Your task to perform on an android device: turn pop-ups off in chrome Image 0: 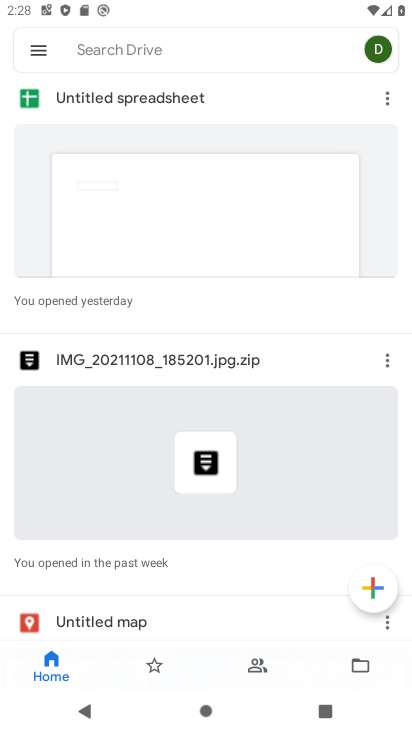
Step 0: press home button
Your task to perform on an android device: turn pop-ups off in chrome Image 1: 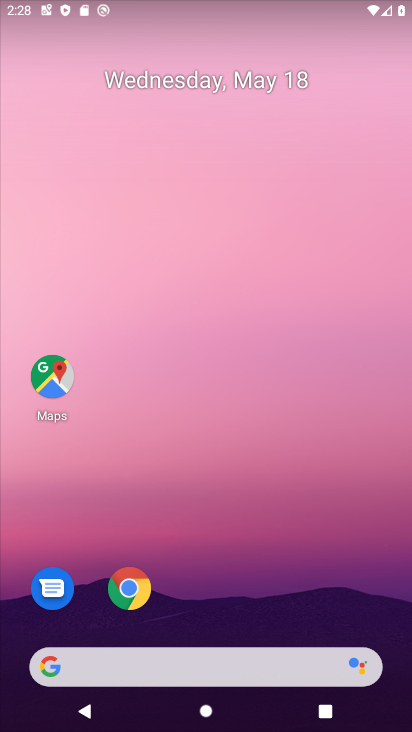
Step 1: drag from (335, 566) to (368, 134)
Your task to perform on an android device: turn pop-ups off in chrome Image 2: 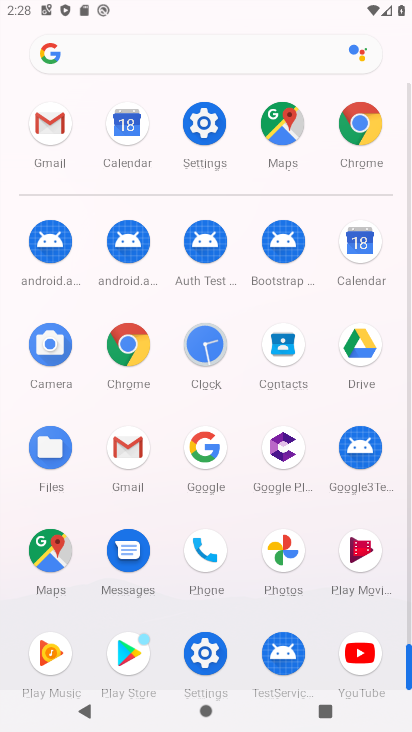
Step 2: click (141, 355)
Your task to perform on an android device: turn pop-ups off in chrome Image 3: 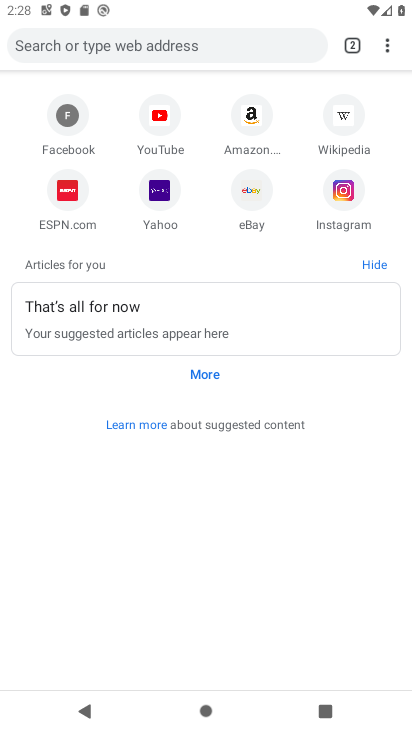
Step 3: click (387, 55)
Your task to perform on an android device: turn pop-ups off in chrome Image 4: 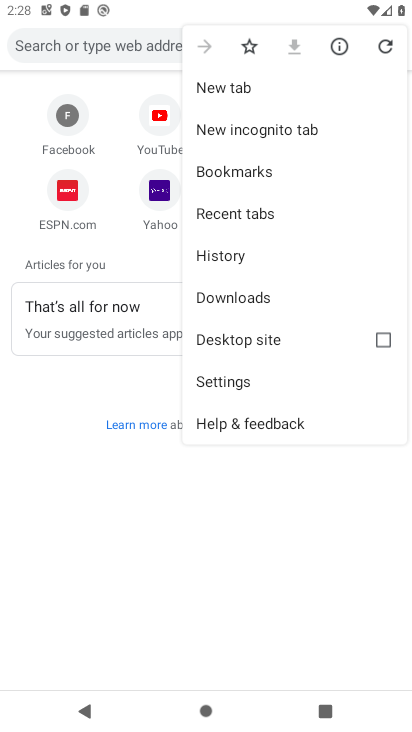
Step 4: click (251, 381)
Your task to perform on an android device: turn pop-ups off in chrome Image 5: 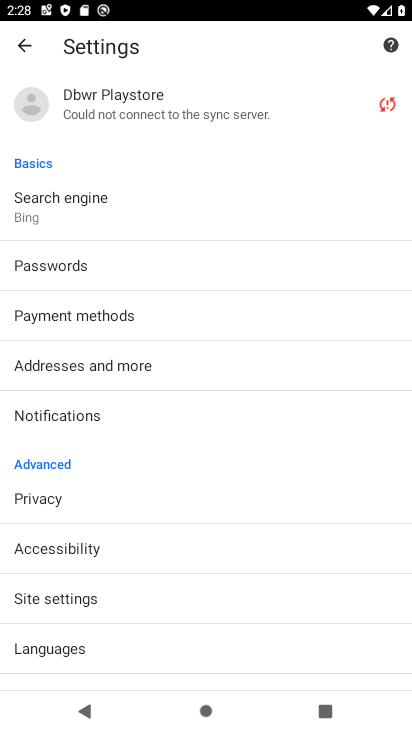
Step 5: drag from (259, 492) to (271, 395)
Your task to perform on an android device: turn pop-ups off in chrome Image 6: 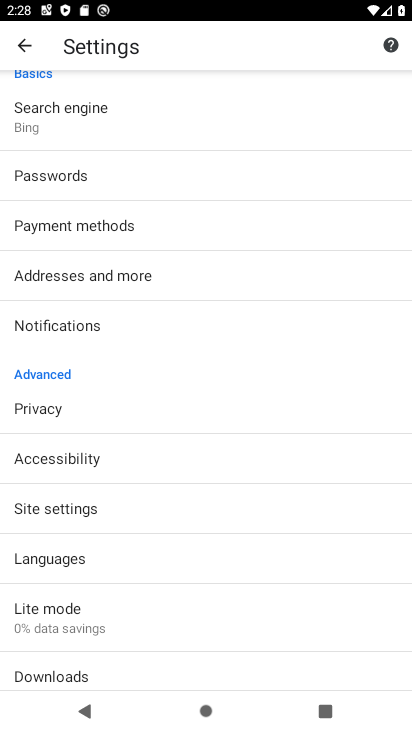
Step 6: drag from (275, 541) to (295, 424)
Your task to perform on an android device: turn pop-ups off in chrome Image 7: 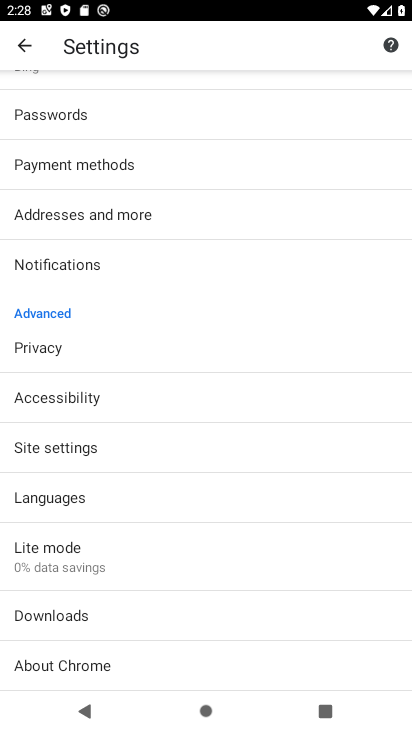
Step 7: drag from (274, 578) to (285, 475)
Your task to perform on an android device: turn pop-ups off in chrome Image 8: 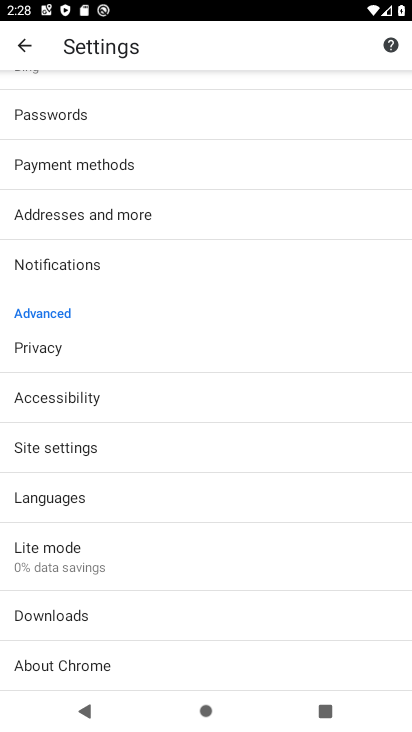
Step 8: drag from (285, 607) to (305, 487)
Your task to perform on an android device: turn pop-ups off in chrome Image 9: 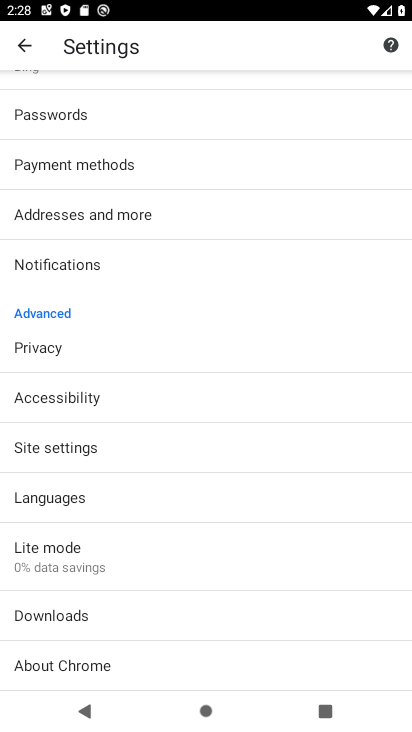
Step 9: drag from (312, 373) to (285, 505)
Your task to perform on an android device: turn pop-ups off in chrome Image 10: 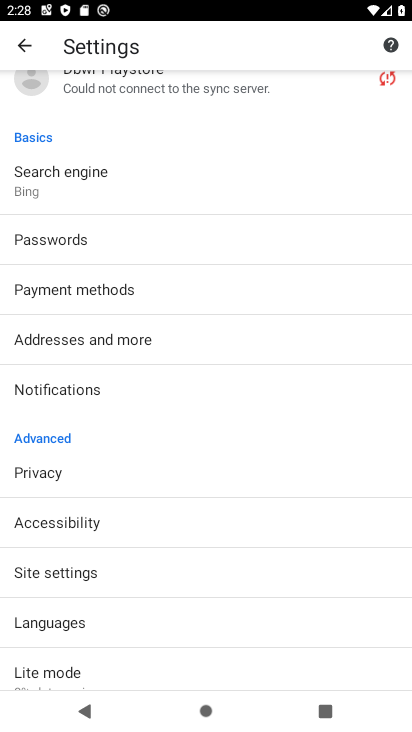
Step 10: drag from (293, 408) to (292, 449)
Your task to perform on an android device: turn pop-ups off in chrome Image 11: 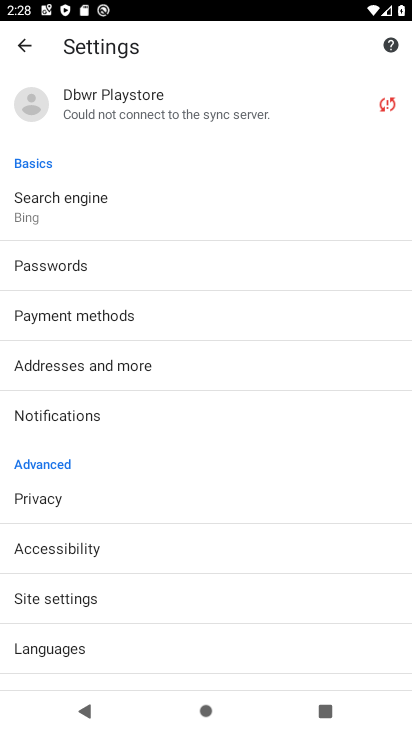
Step 11: drag from (313, 313) to (311, 504)
Your task to perform on an android device: turn pop-ups off in chrome Image 12: 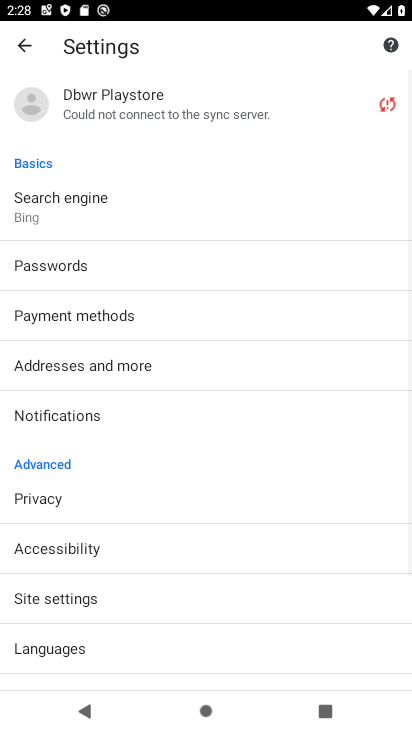
Step 12: drag from (311, 538) to (323, 395)
Your task to perform on an android device: turn pop-ups off in chrome Image 13: 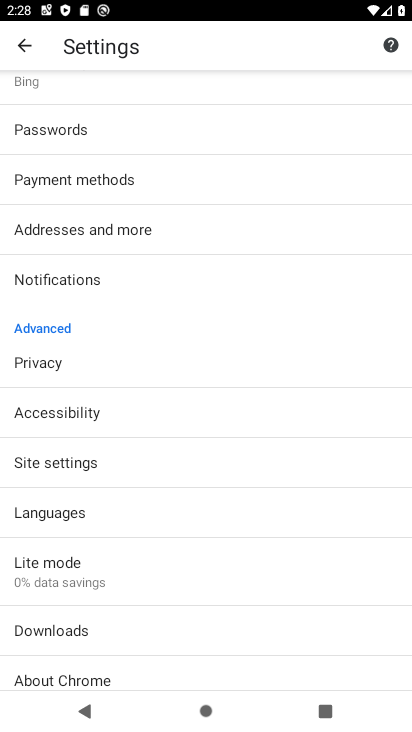
Step 13: click (278, 477)
Your task to perform on an android device: turn pop-ups off in chrome Image 14: 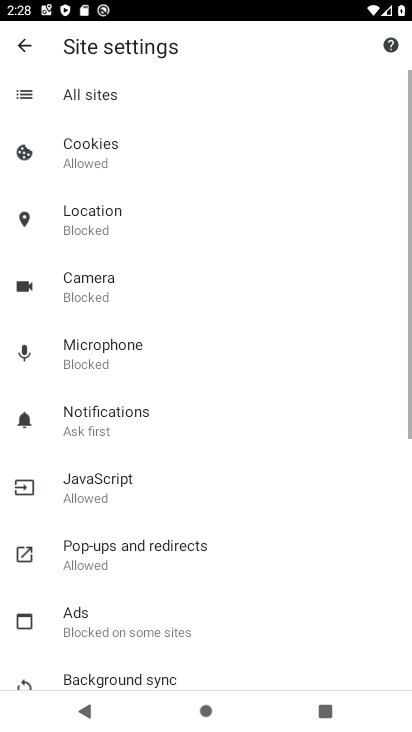
Step 14: drag from (288, 527) to (317, 387)
Your task to perform on an android device: turn pop-ups off in chrome Image 15: 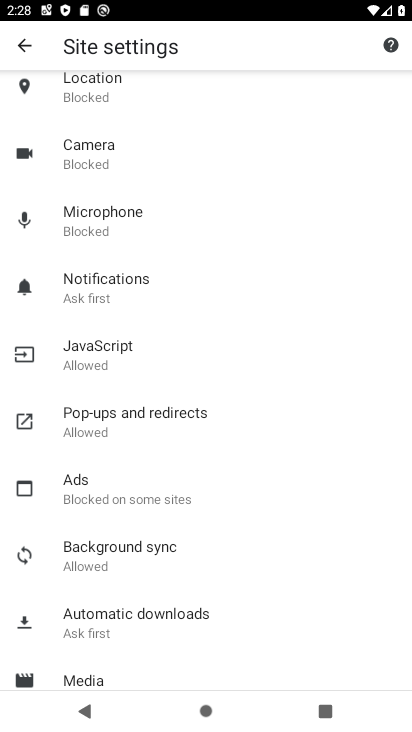
Step 15: drag from (333, 569) to (350, 439)
Your task to perform on an android device: turn pop-ups off in chrome Image 16: 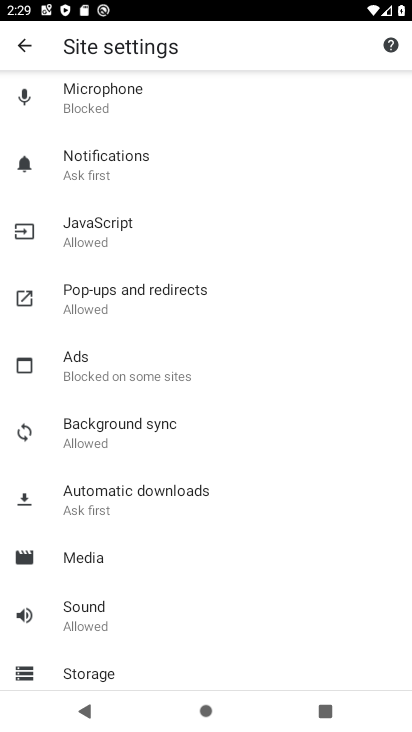
Step 16: drag from (321, 571) to (334, 480)
Your task to perform on an android device: turn pop-ups off in chrome Image 17: 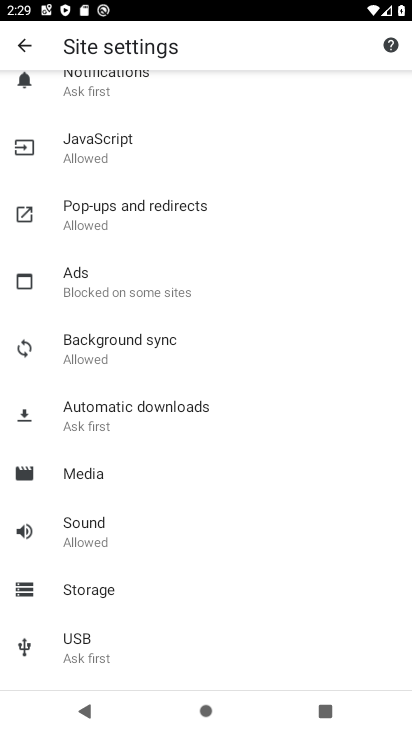
Step 17: drag from (339, 616) to (361, 512)
Your task to perform on an android device: turn pop-ups off in chrome Image 18: 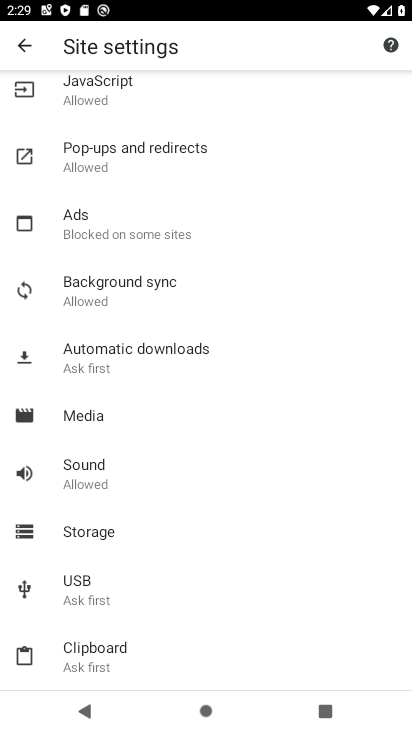
Step 18: drag from (348, 617) to (363, 526)
Your task to perform on an android device: turn pop-ups off in chrome Image 19: 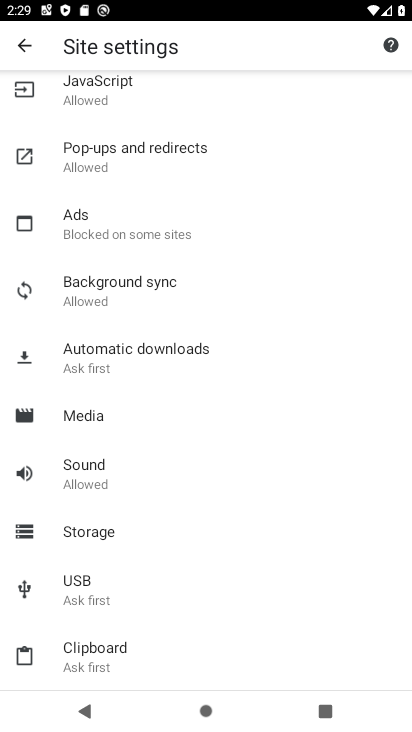
Step 19: drag from (346, 649) to (360, 549)
Your task to perform on an android device: turn pop-ups off in chrome Image 20: 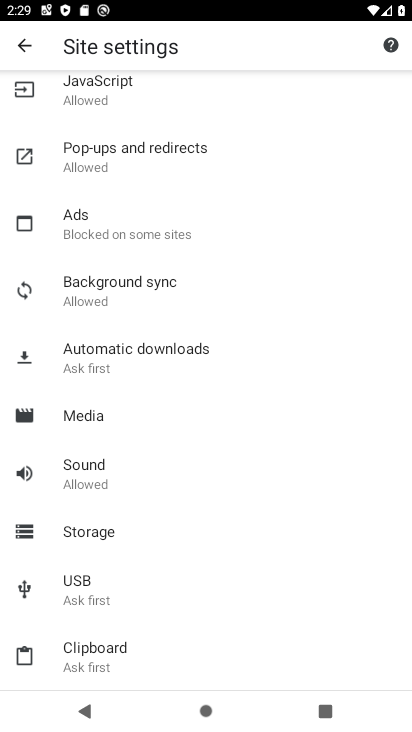
Step 20: drag from (348, 703) to (370, 590)
Your task to perform on an android device: turn pop-ups off in chrome Image 21: 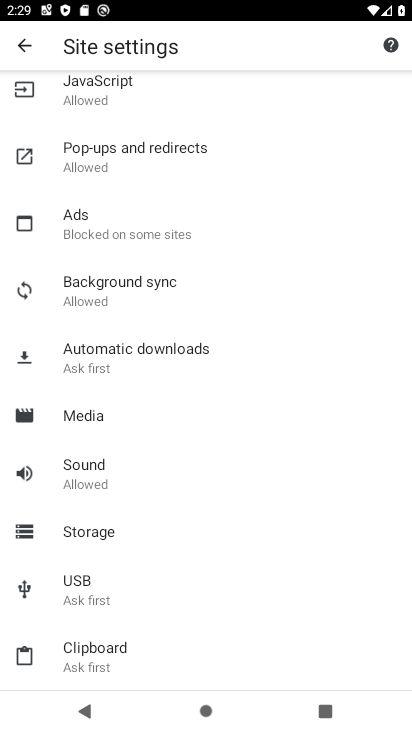
Step 21: drag from (343, 616) to (342, 525)
Your task to perform on an android device: turn pop-ups off in chrome Image 22: 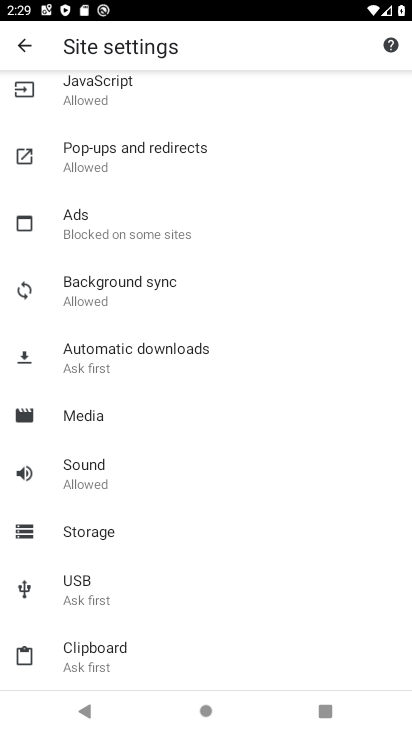
Step 22: drag from (329, 389) to (331, 513)
Your task to perform on an android device: turn pop-ups off in chrome Image 23: 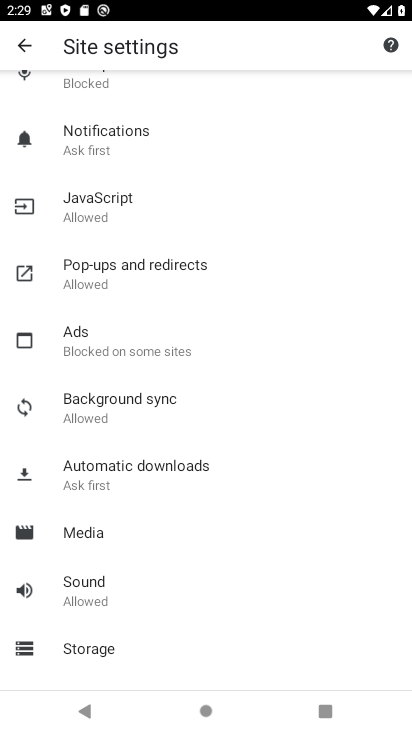
Step 23: drag from (331, 370) to (328, 467)
Your task to perform on an android device: turn pop-ups off in chrome Image 24: 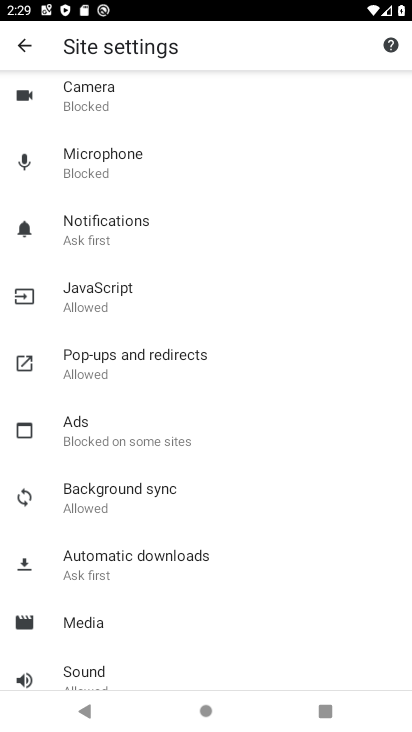
Step 24: drag from (335, 315) to (336, 420)
Your task to perform on an android device: turn pop-ups off in chrome Image 25: 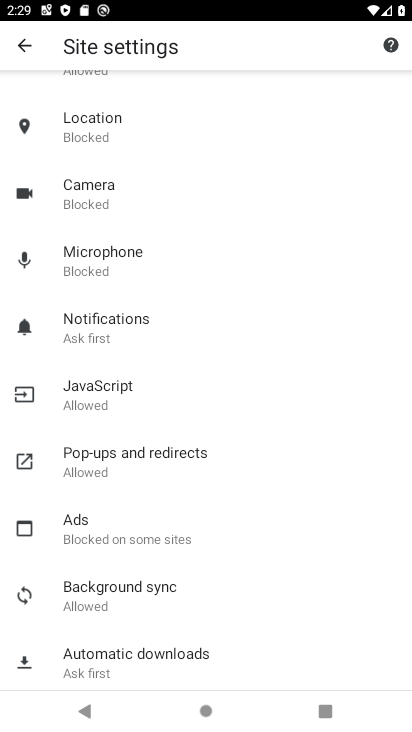
Step 25: drag from (333, 278) to (340, 374)
Your task to perform on an android device: turn pop-ups off in chrome Image 26: 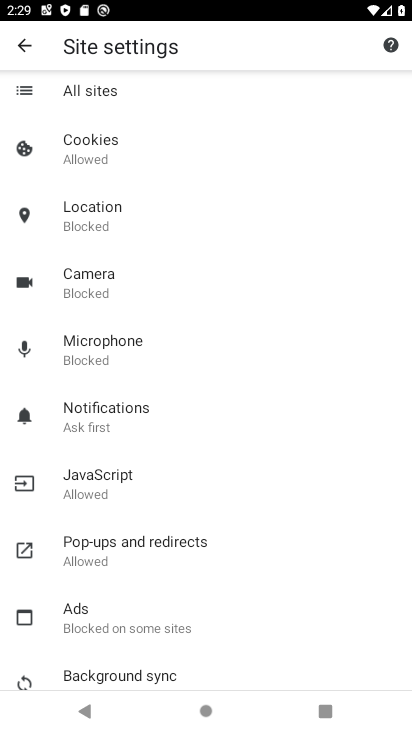
Step 26: click (337, 350)
Your task to perform on an android device: turn pop-ups off in chrome Image 27: 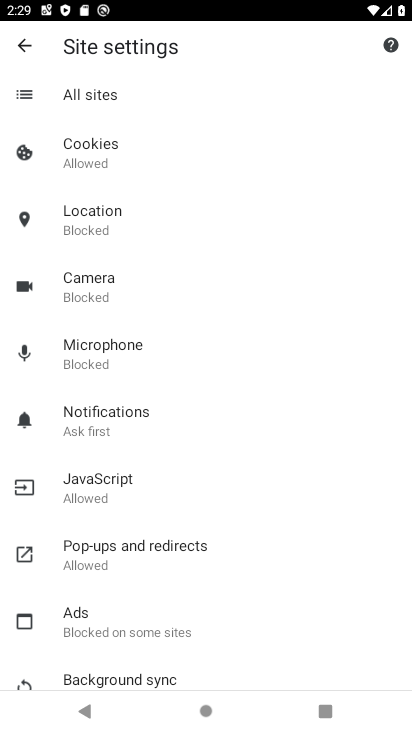
Step 27: click (353, 316)
Your task to perform on an android device: turn pop-ups off in chrome Image 28: 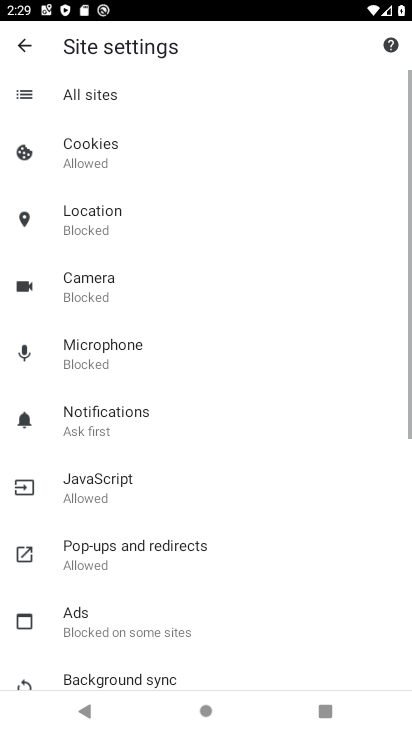
Step 28: drag from (357, 308) to (362, 367)
Your task to perform on an android device: turn pop-ups off in chrome Image 29: 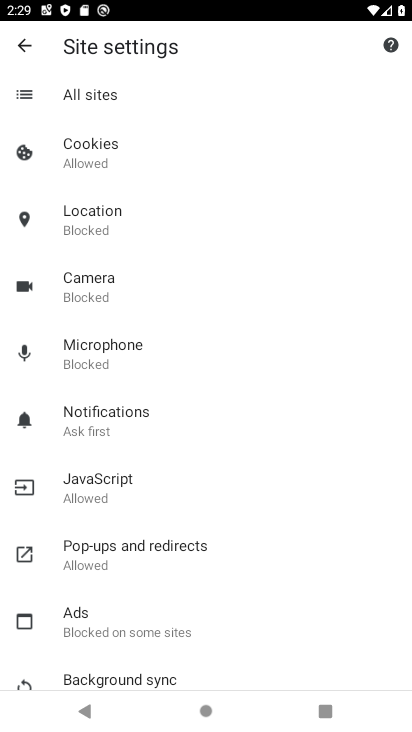
Step 29: drag from (350, 311) to (342, 483)
Your task to perform on an android device: turn pop-ups off in chrome Image 30: 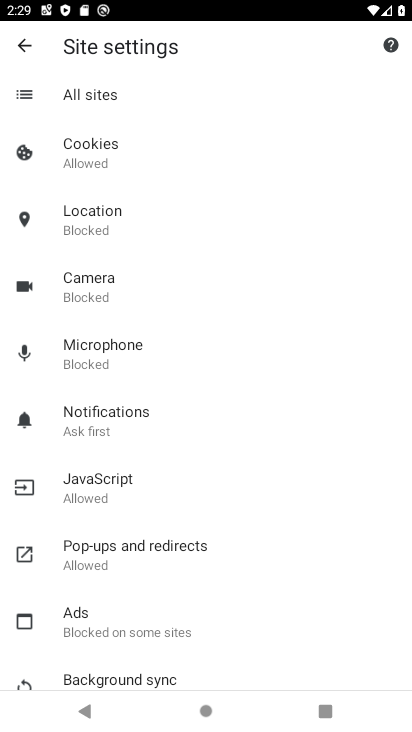
Step 30: click (182, 557)
Your task to perform on an android device: turn pop-ups off in chrome Image 31: 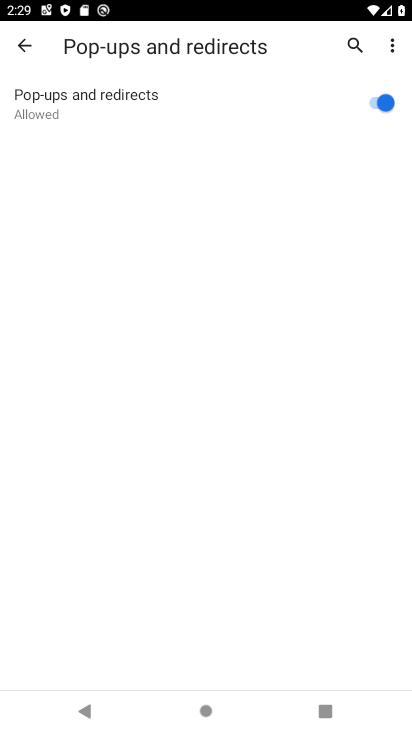
Step 31: click (380, 91)
Your task to perform on an android device: turn pop-ups off in chrome Image 32: 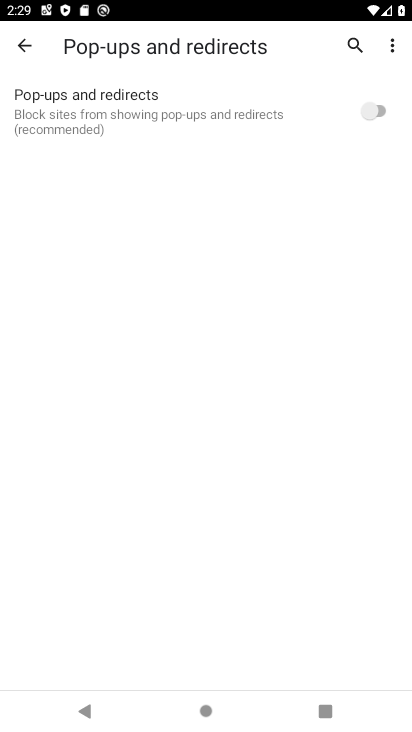
Step 32: task complete